Your task to perform on an android device: delete the emails in spam in the gmail app Image 0: 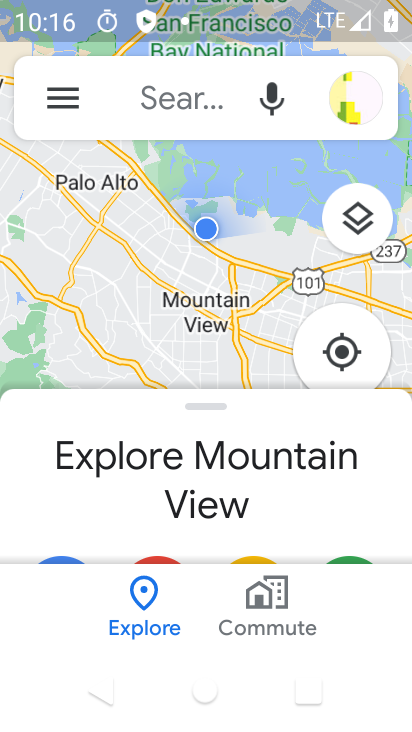
Step 0: press home button
Your task to perform on an android device: delete the emails in spam in the gmail app Image 1: 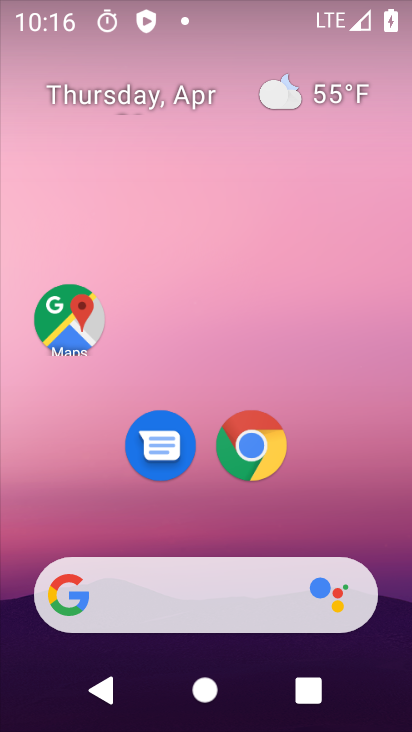
Step 1: drag from (389, 560) to (407, 498)
Your task to perform on an android device: delete the emails in spam in the gmail app Image 2: 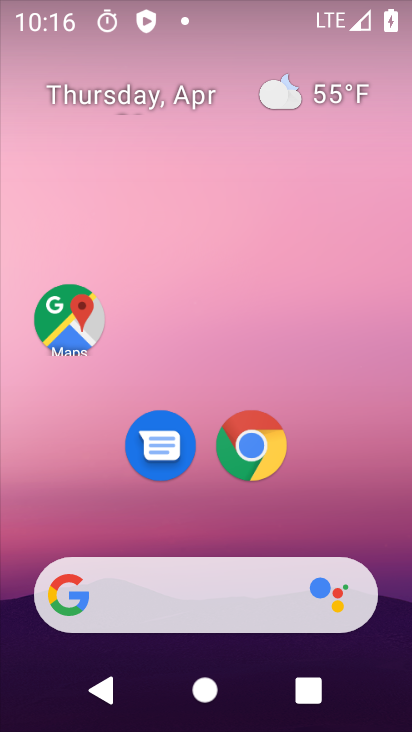
Step 2: drag from (380, 567) to (380, 0)
Your task to perform on an android device: delete the emails in spam in the gmail app Image 3: 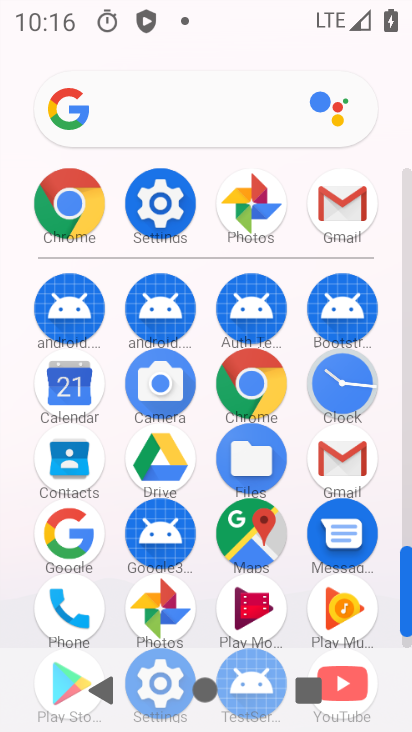
Step 3: click (340, 210)
Your task to perform on an android device: delete the emails in spam in the gmail app Image 4: 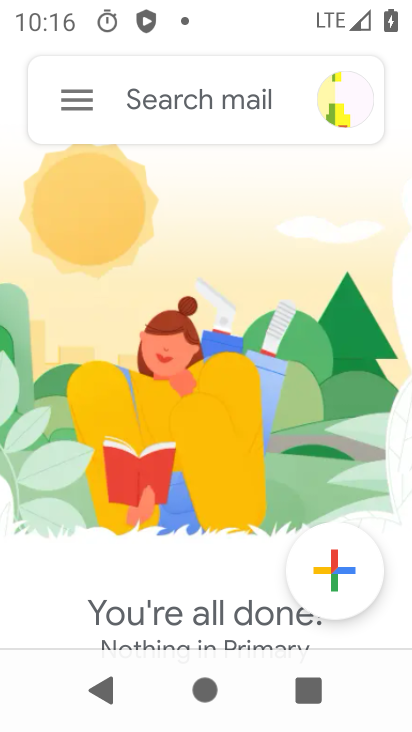
Step 4: click (95, 102)
Your task to perform on an android device: delete the emails in spam in the gmail app Image 5: 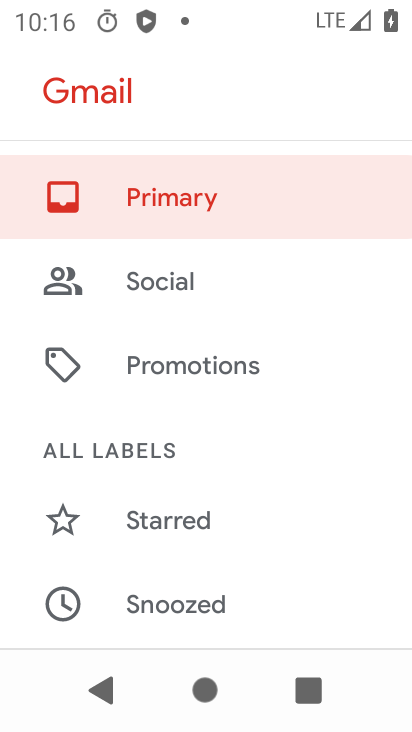
Step 5: drag from (230, 539) to (229, 176)
Your task to perform on an android device: delete the emails in spam in the gmail app Image 6: 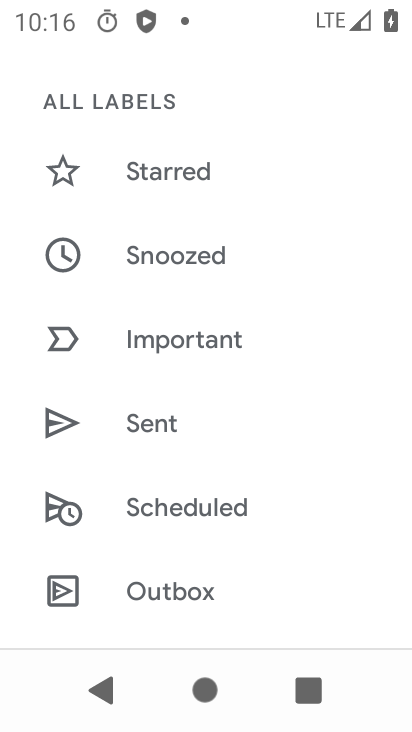
Step 6: drag from (236, 518) to (245, 160)
Your task to perform on an android device: delete the emails in spam in the gmail app Image 7: 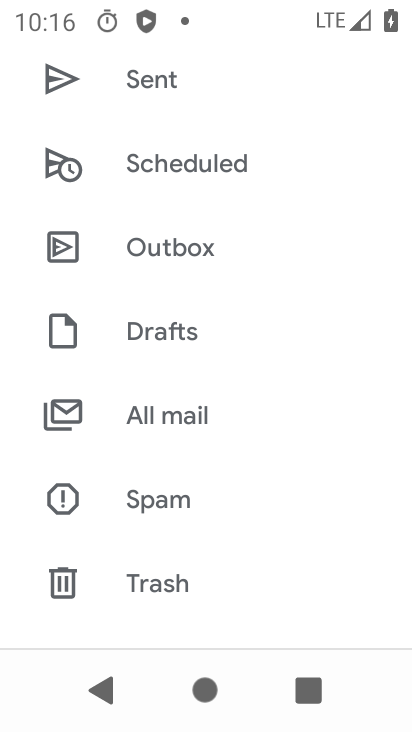
Step 7: click (140, 508)
Your task to perform on an android device: delete the emails in spam in the gmail app Image 8: 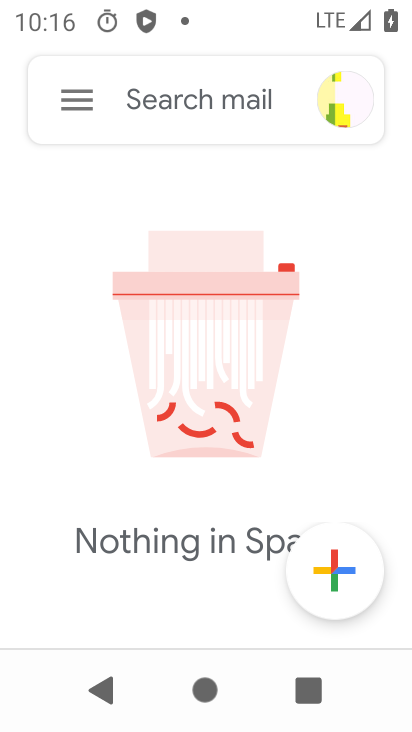
Step 8: task complete